Your task to perform on an android device: turn off translation in the chrome app Image 0: 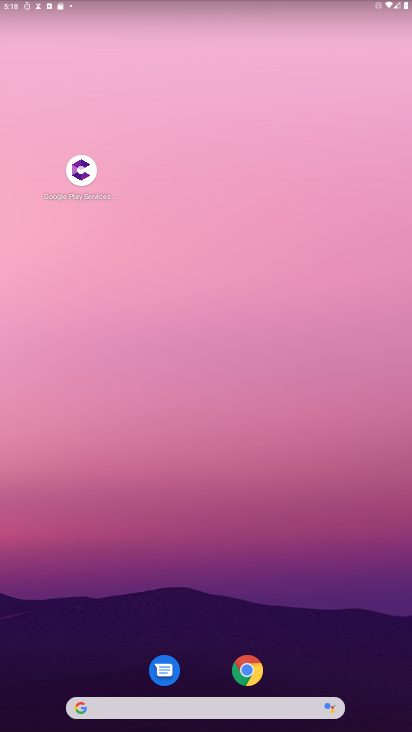
Step 0: drag from (291, 689) to (331, 15)
Your task to perform on an android device: turn off translation in the chrome app Image 1: 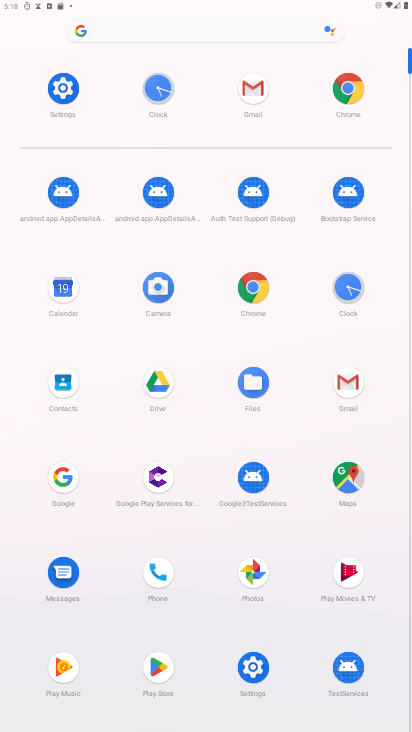
Step 1: click (261, 288)
Your task to perform on an android device: turn off translation in the chrome app Image 2: 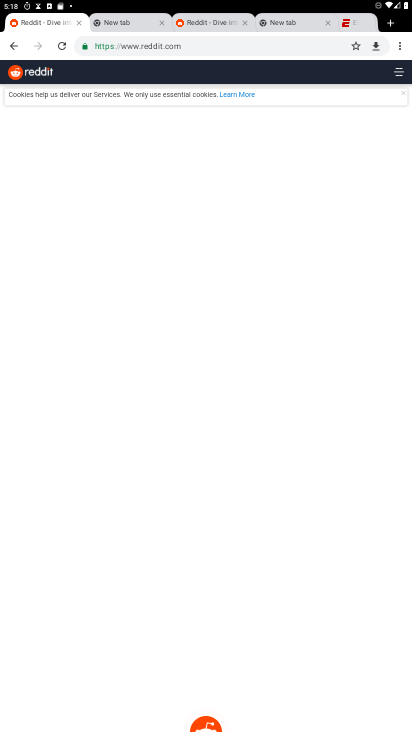
Step 2: click (400, 48)
Your task to perform on an android device: turn off translation in the chrome app Image 3: 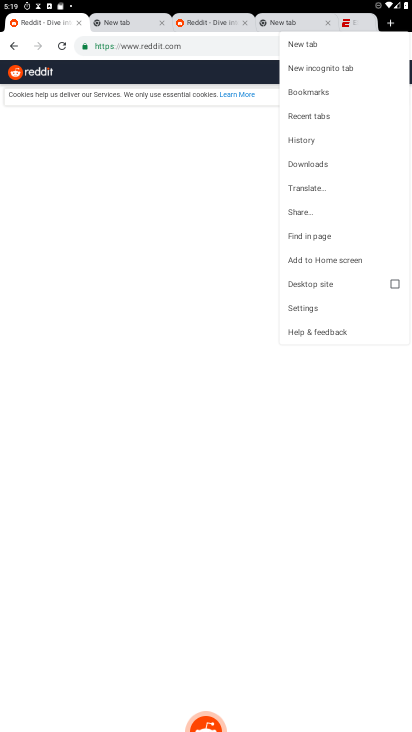
Step 3: click (312, 306)
Your task to perform on an android device: turn off translation in the chrome app Image 4: 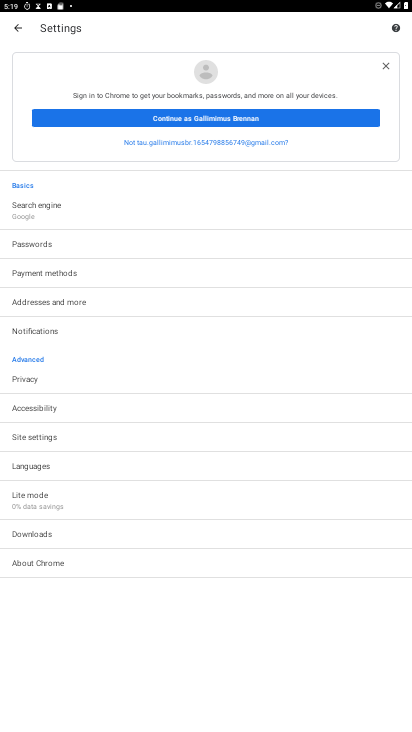
Step 4: click (36, 467)
Your task to perform on an android device: turn off translation in the chrome app Image 5: 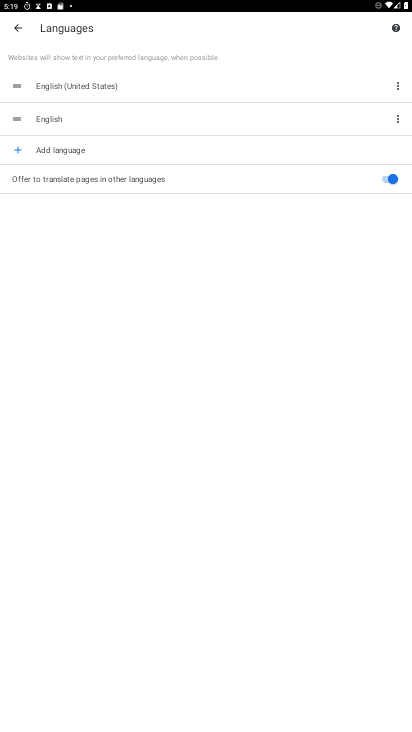
Step 5: click (382, 176)
Your task to perform on an android device: turn off translation in the chrome app Image 6: 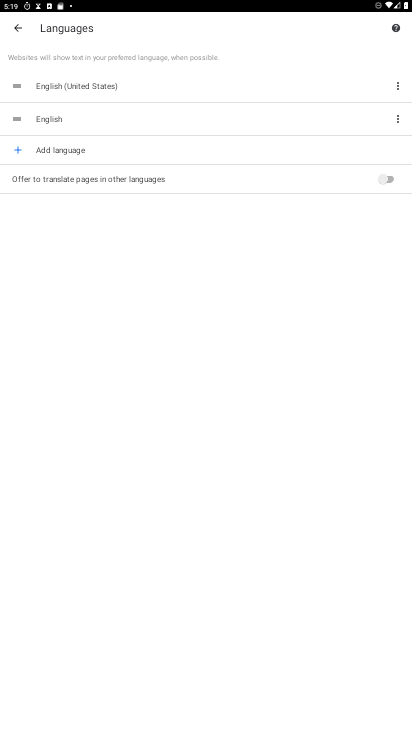
Step 6: task complete